Your task to perform on an android device: Open the web browser Image 0: 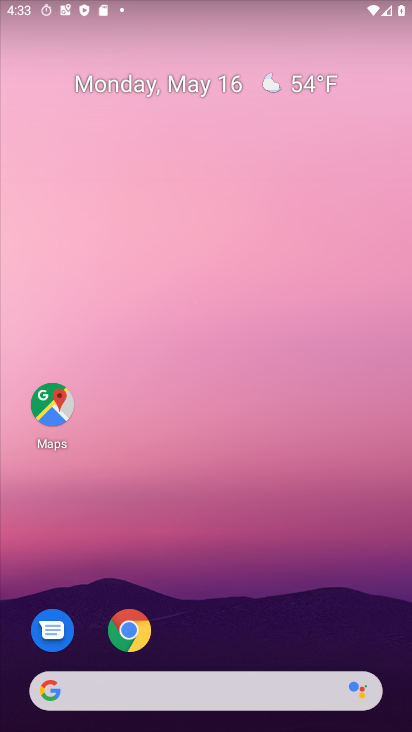
Step 0: click (131, 628)
Your task to perform on an android device: Open the web browser Image 1: 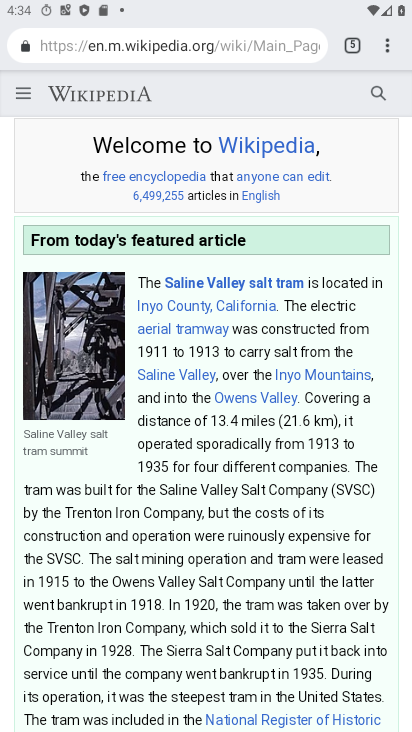
Step 1: task complete